Your task to perform on an android device: Open display settings Image 0: 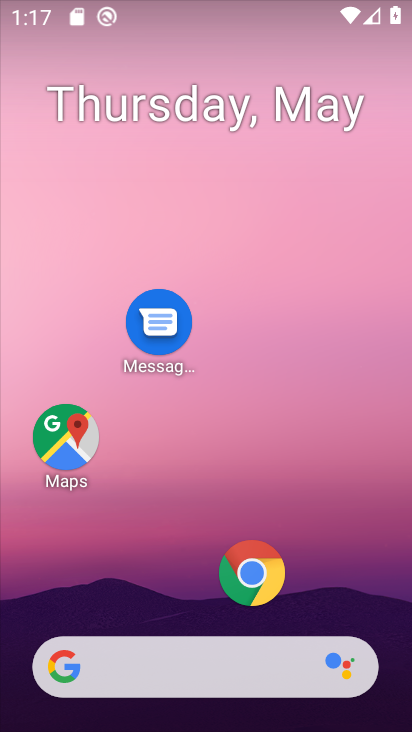
Step 0: drag from (223, 602) to (293, 64)
Your task to perform on an android device: Open display settings Image 1: 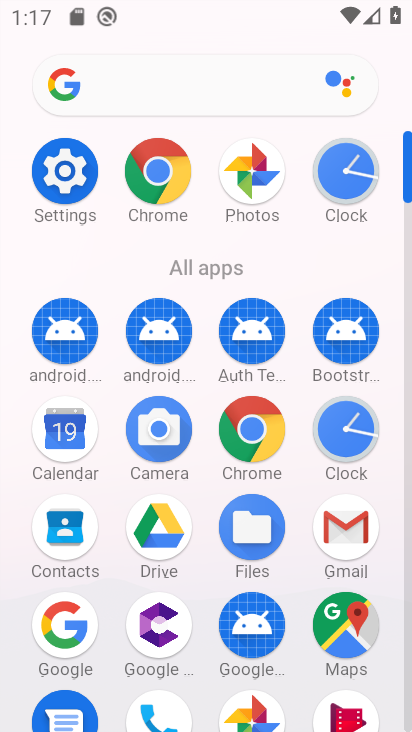
Step 1: click (76, 178)
Your task to perform on an android device: Open display settings Image 2: 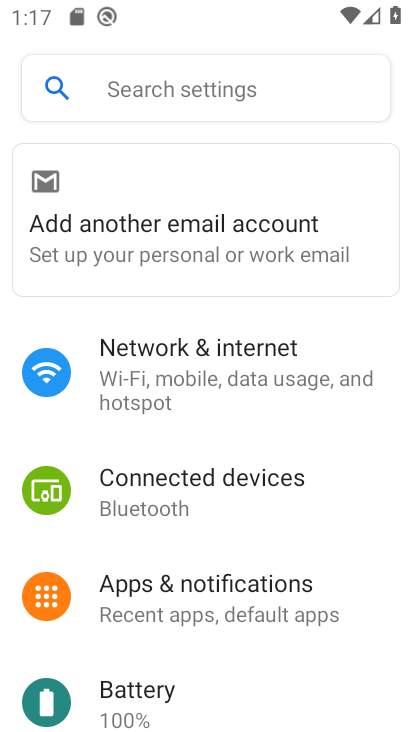
Step 2: drag from (217, 597) to (328, 116)
Your task to perform on an android device: Open display settings Image 3: 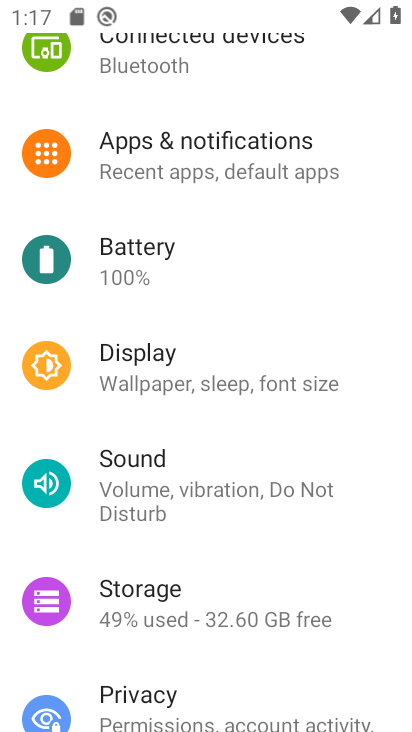
Step 3: click (118, 364)
Your task to perform on an android device: Open display settings Image 4: 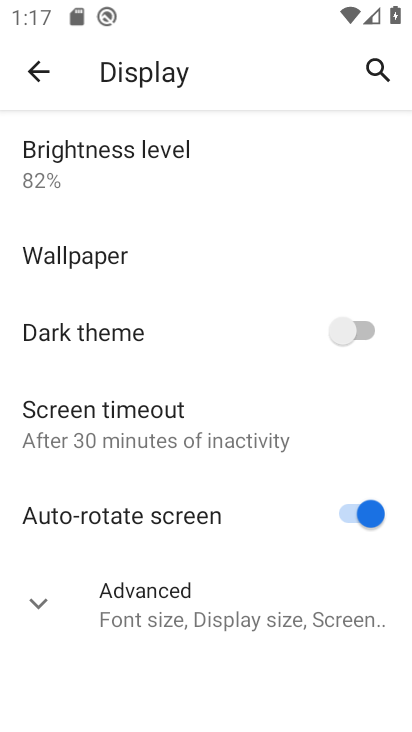
Step 4: task complete